Your task to perform on an android device: set the timer Image 0: 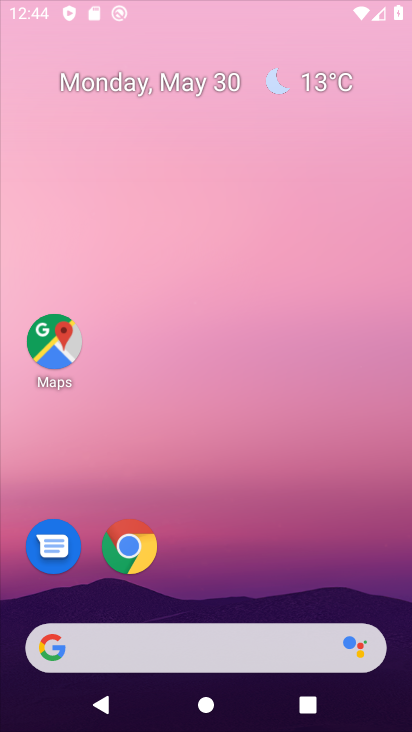
Step 0: press home button
Your task to perform on an android device: set the timer Image 1: 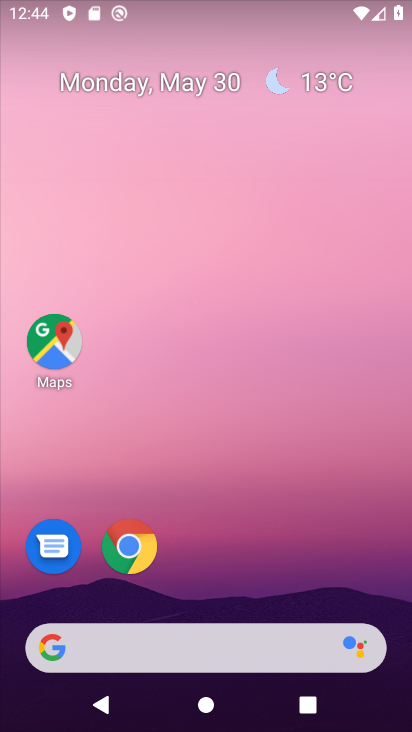
Step 1: drag from (275, 606) to (265, 186)
Your task to perform on an android device: set the timer Image 2: 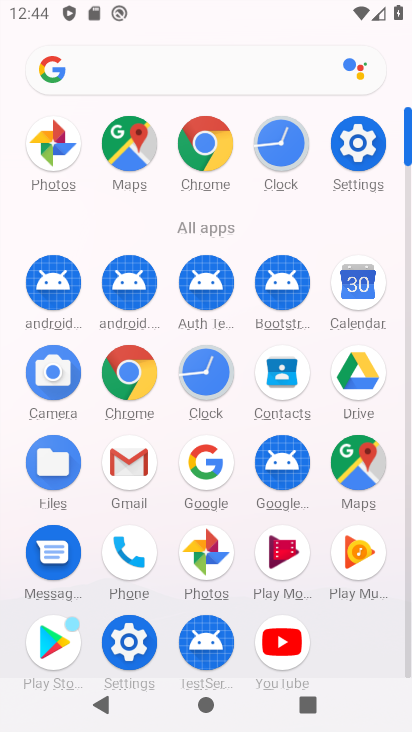
Step 2: click (278, 159)
Your task to perform on an android device: set the timer Image 3: 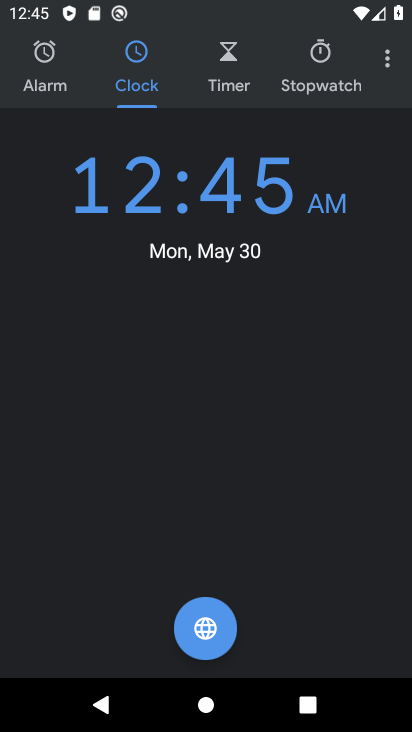
Step 3: click (229, 60)
Your task to perform on an android device: set the timer Image 4: 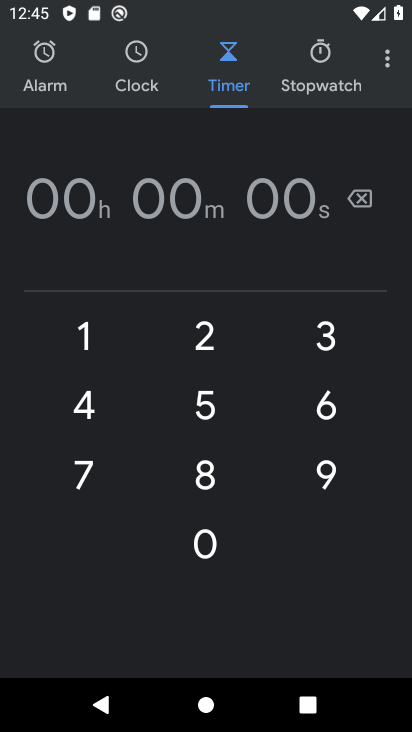
Step 4: click (68, 200)
Your task to perform on an android device: set the timer Image 5: 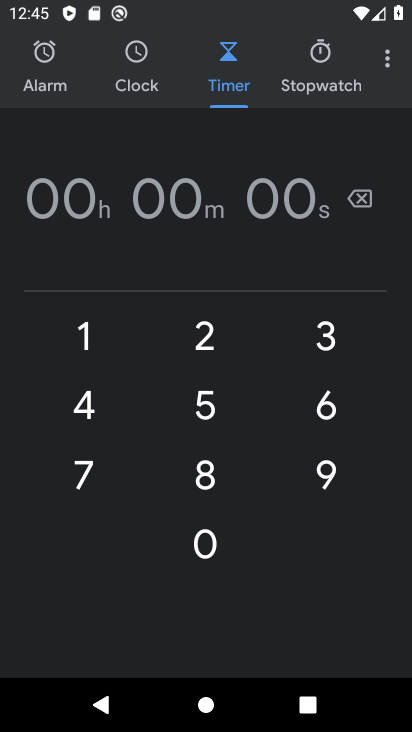
Step 5: click (97, 342)
Your task to perform on an android device: set the timer Image 6: 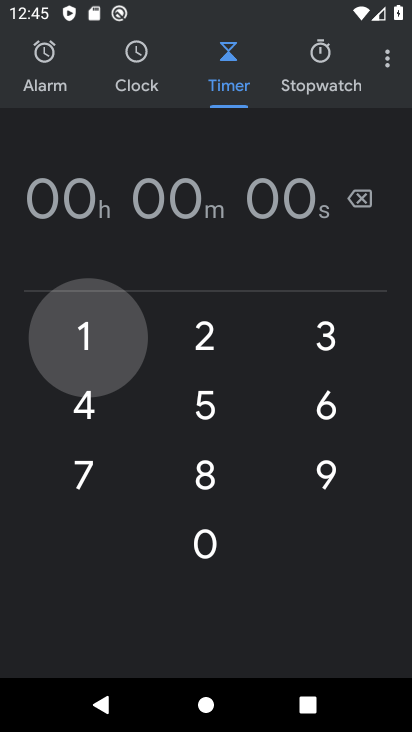
Step 6: click (202, 349)
Your task to perform on an android device: set the timer Image 7: 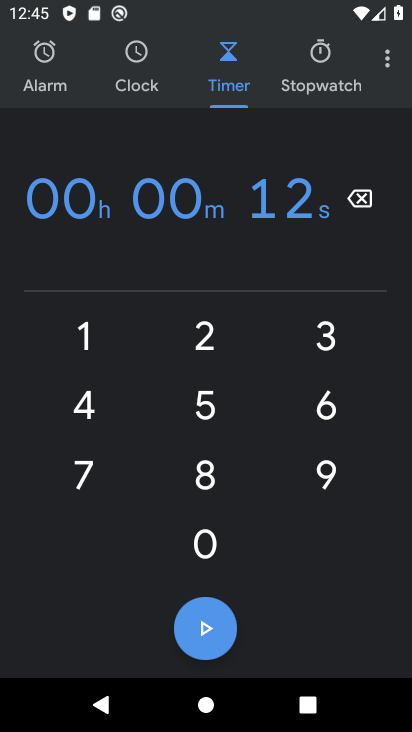
Step 7: click (202, 405)
Your task to perform on an android device: set the timer Image 8: 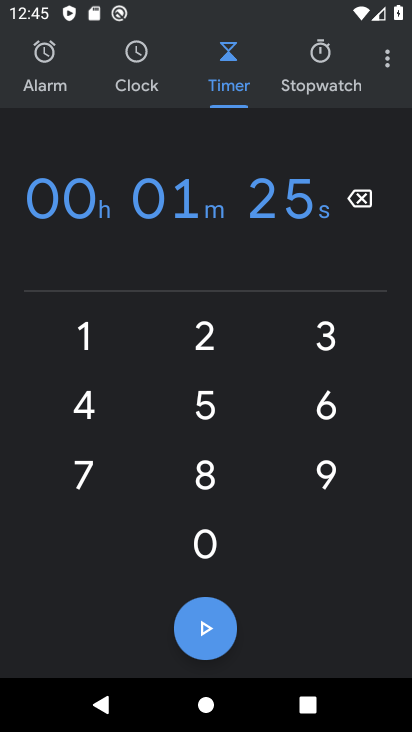
Step 8: click (202, 405)
Your task to perform on an android device: set the timer Image 9: 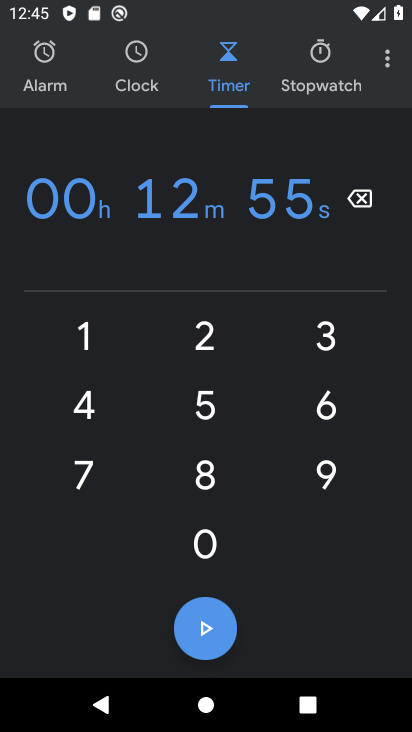
Step 9: click (209, 477)
Your task to perform on an android device: set the timer Image 10: 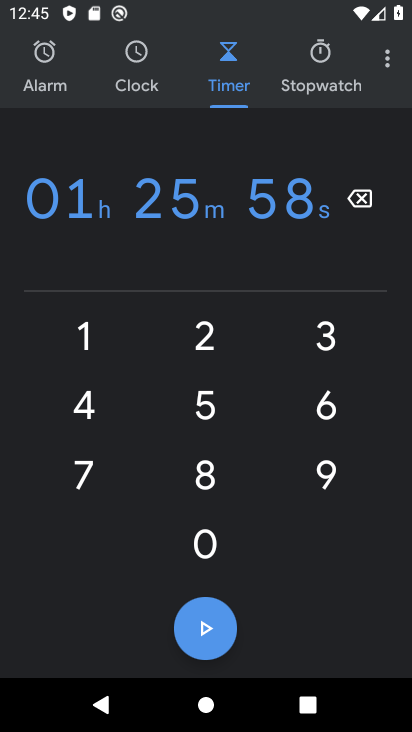
Step 10: click (327, 459)
Your task to perform on an android device: set the timer Image 11: 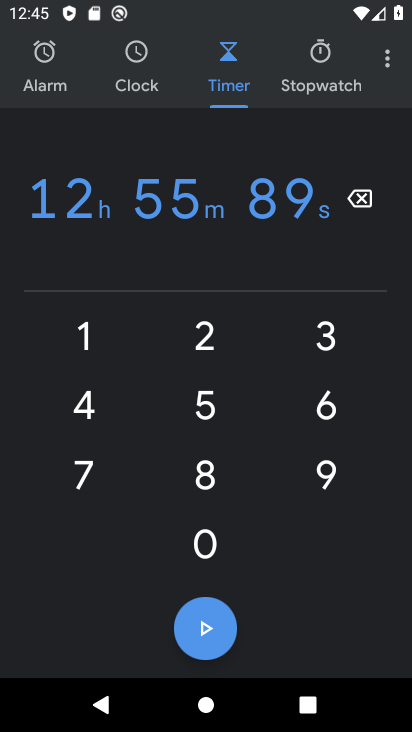
Step 11: task complete